Your task to perform on an android device: See recent photos Image 0: 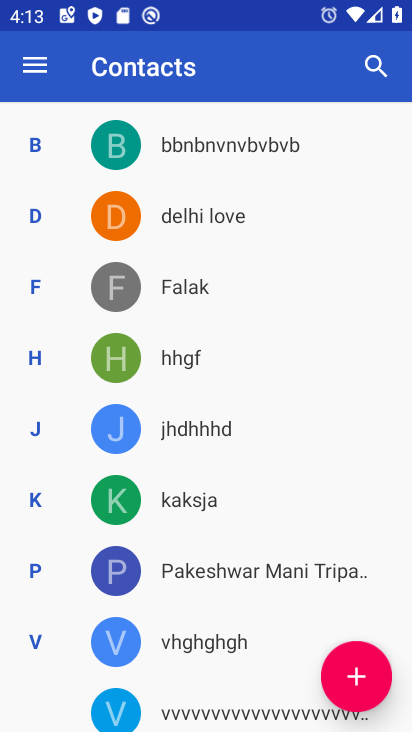
Step 0: press home button
Your task to perform on an android device: See recent photos Image 1: 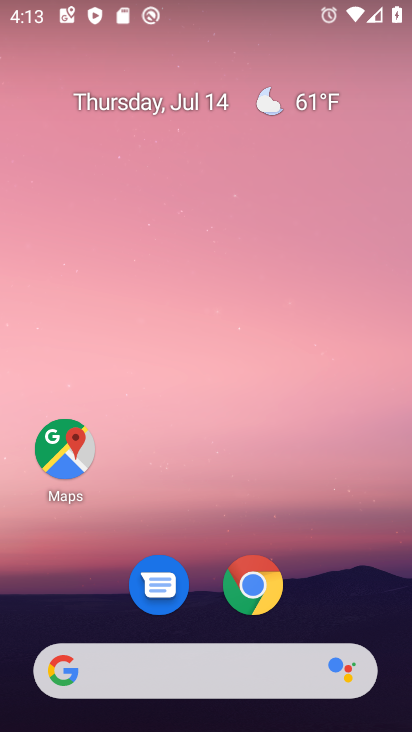
Step 1: drag from (335, 593) to (352, 46)
Your task to perform on an android device: See recent photos Image 2: 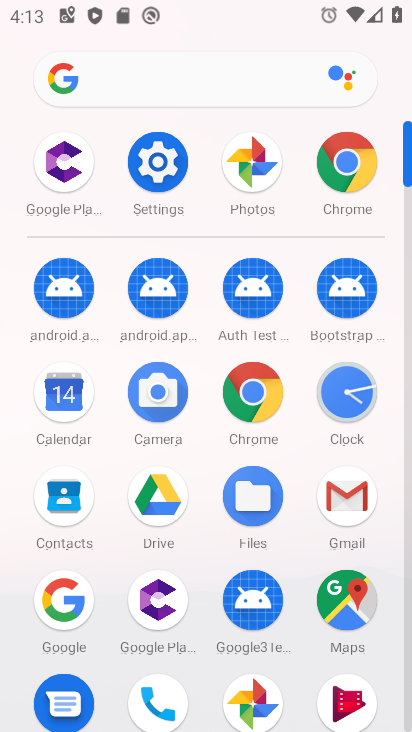
Step 2: click (241, 155)
Your task to perform on an android device: See recent photos Image 3: 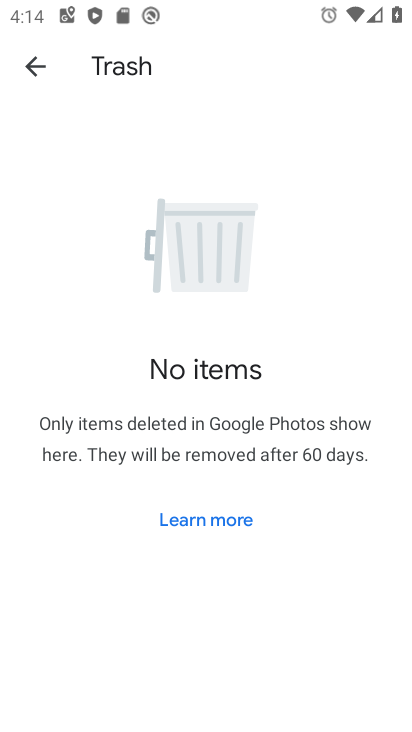
Step 3: click (28, 59)
Your task to perform on an android device: See recent photos Image 4: 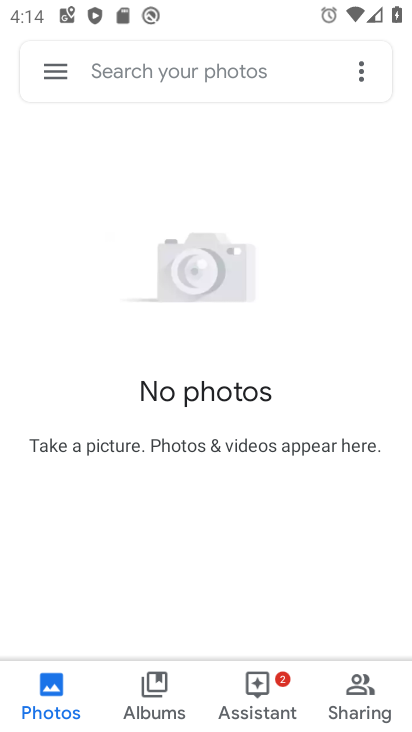
Step 4: click (266, 65)
Your task to perform on an android device: See recent photos Image 5: 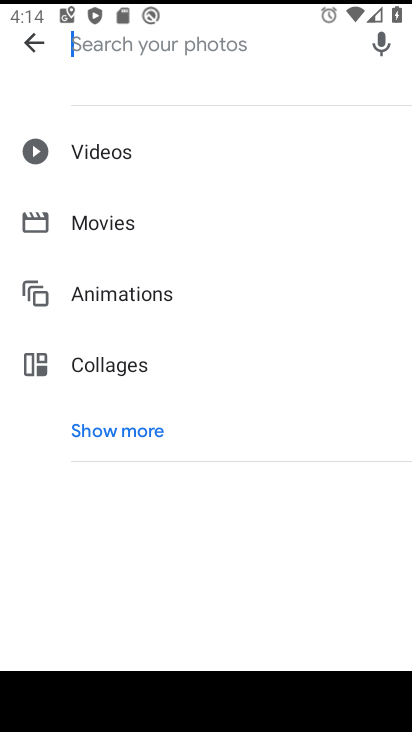
Step 5: click (140, 430)
Your task to perform on an android device: See recent photos Image 6: 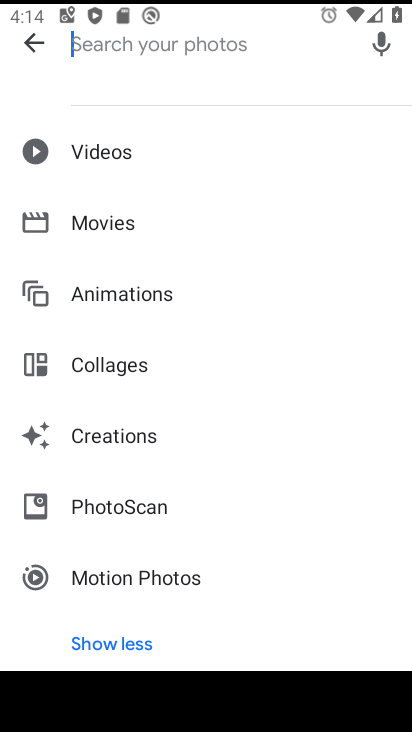
Step 6: drag from (188, 534) to (205, 408)
Your task to perform on an android device: See recent photos Image 7: 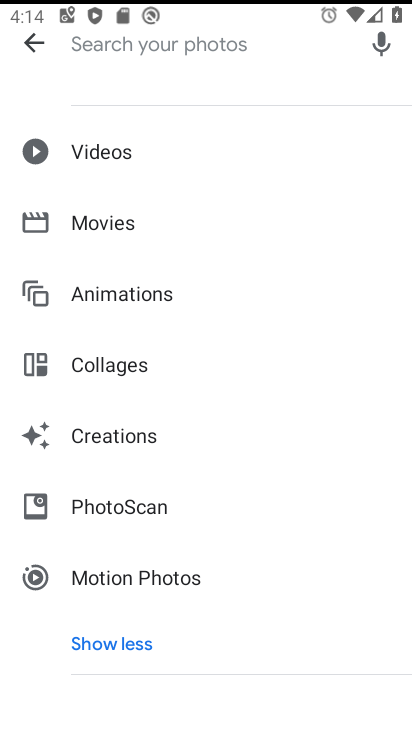
Step 7: type "recent photos"
Your task to perform on an android device: See recent photos Image 8: 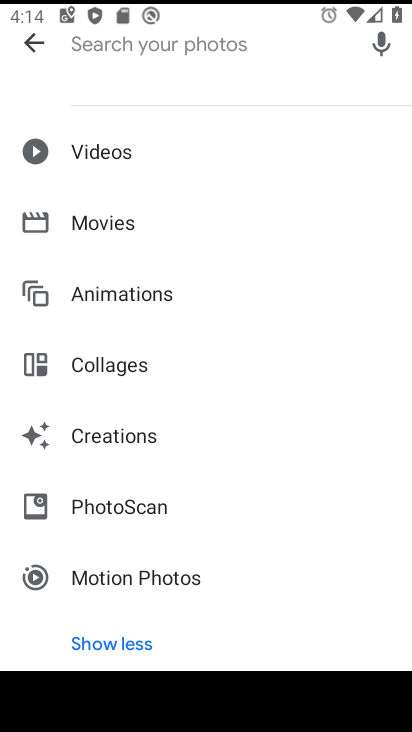
Step 8: drag from (253, 250) to (246, 525)
Your task to perform on an android device: See recent photos Image 9: 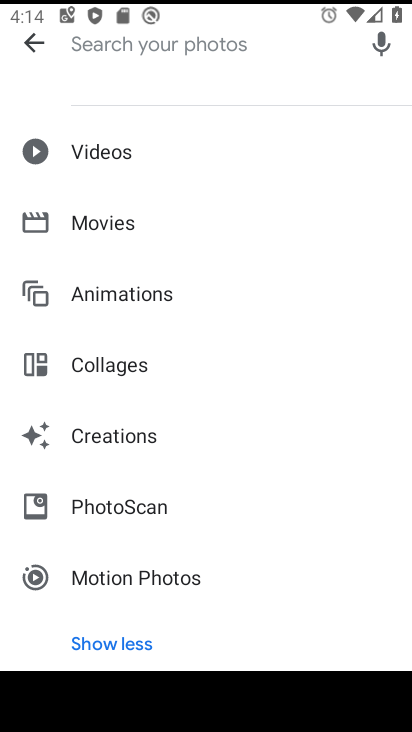
Step 9: click (41, 40)
Your task to perform on an android device: See recent photos Image 10: 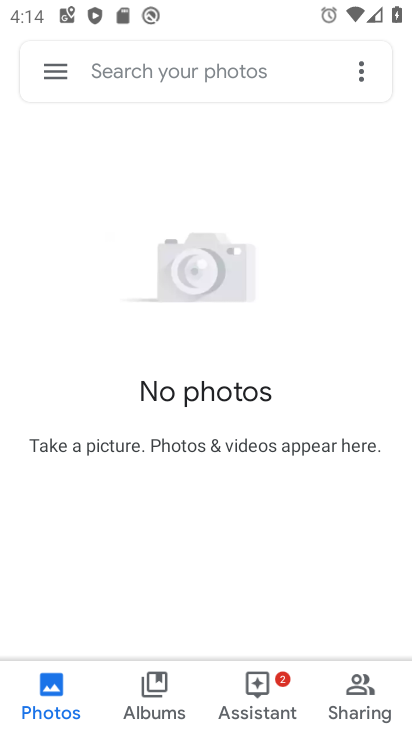
Step 10: task complete